Your task to perform on an android device: What is the recent news? Image 0: 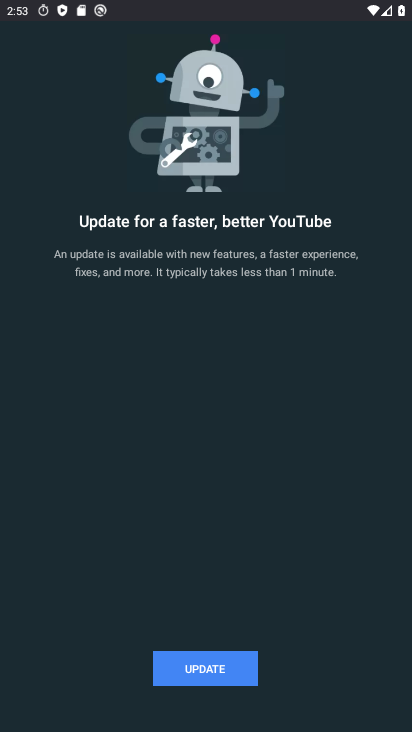
Step 0: press home button
Your task to perform on an android device: What is the recent news? Image 1: 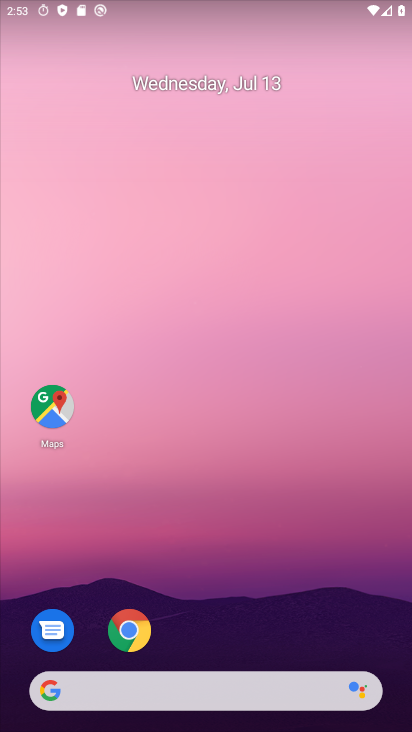
Step 1: click (90, 691)
Your task to perform on an android device: What is the recent news? Image 2: 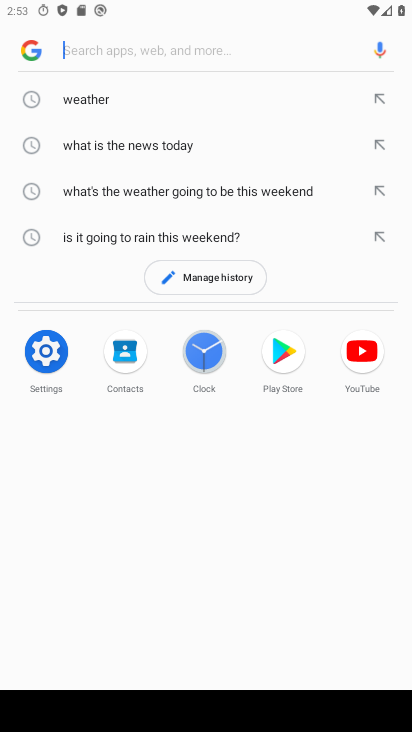
Step 2: type "What is the recent news?"
Your task to perform on an android device: What is the recent news? Image 3: 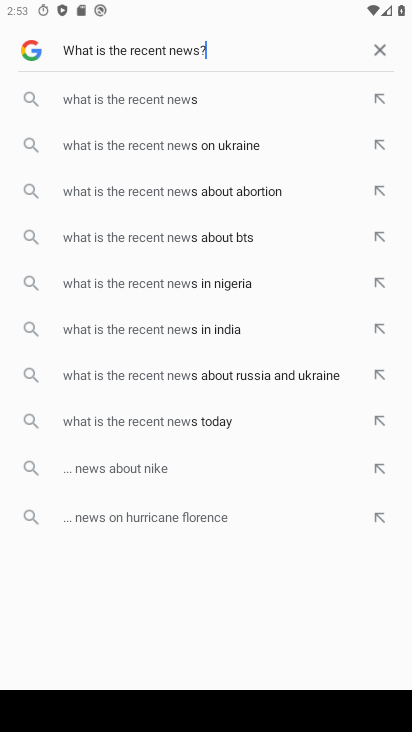
Step 3: type ""
Your task to perform on an android device: What is the recent news? Image 4: 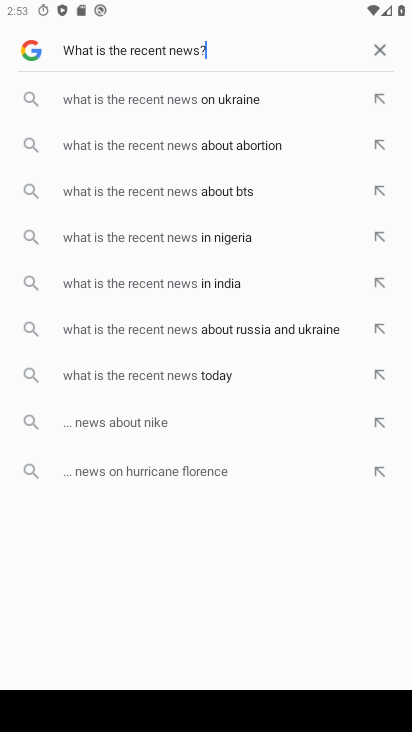
Step 4: type ""
Your task to perform on an android device: What is the recent news? Image 5: 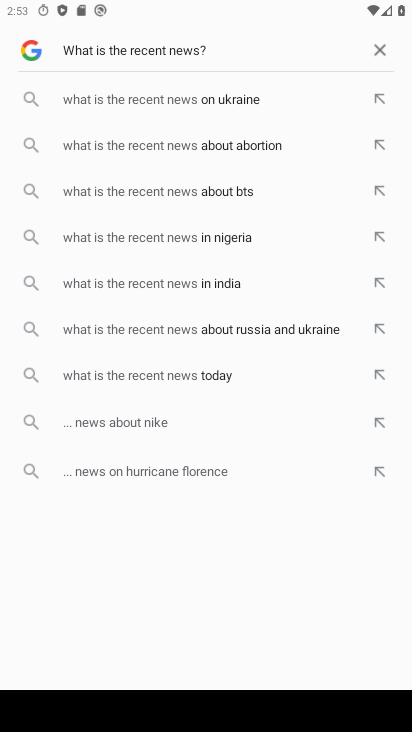
Step 5: type ""
Your task to perform on an android device: What is the recent news? Image 6: 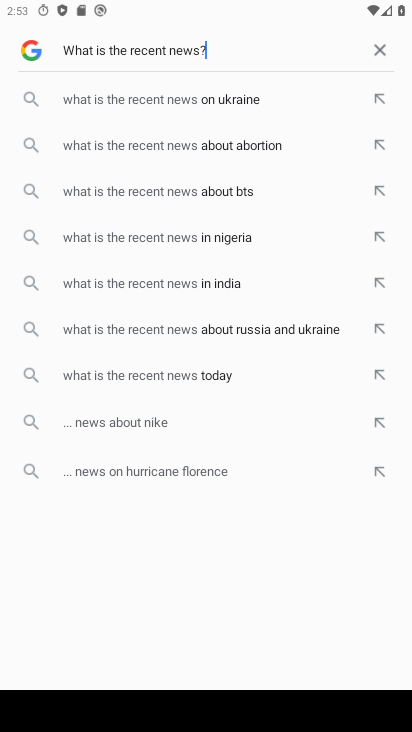
Step 6: type ""
Your task to perform on an android device: What is the recent news? Image 7: 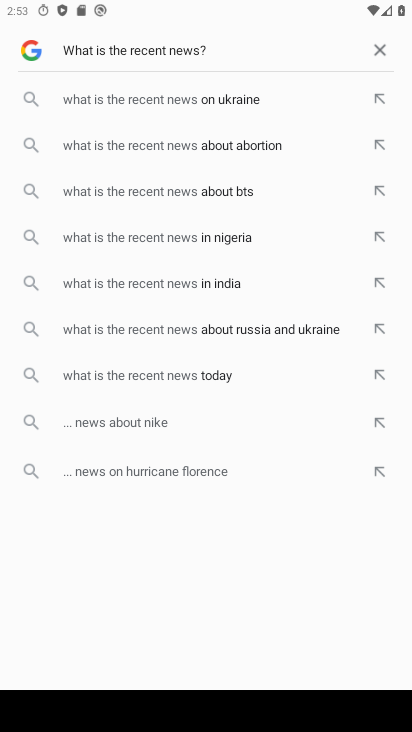
Step 7: type ""
Your task to perform on an android device: What is the recent news? Image 8: 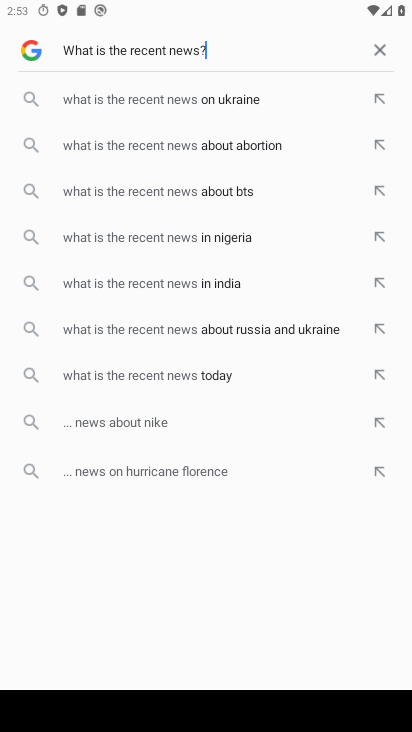
Step 8: type ""
Your task to perform on an android device: What is the recent news? Image 9: 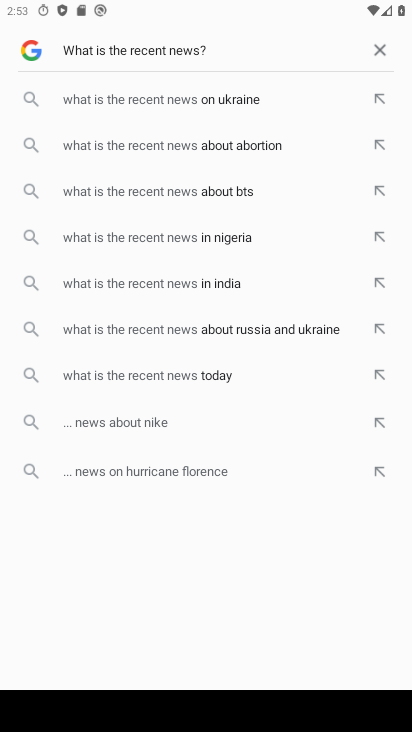
Step 9: task complete